Your task to perform on an android device: turn off javascript in the chrome app Image 0: 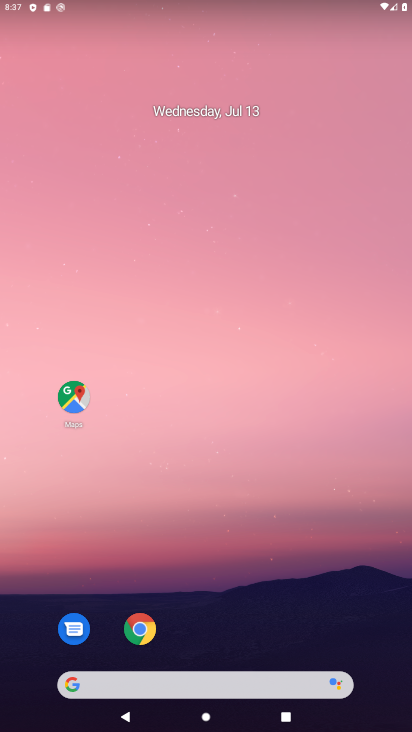
Step 0: drag from (233, 667) to (242, 197)
Your task to perform on an android device: turn off javascript in the chrome app Image 1: 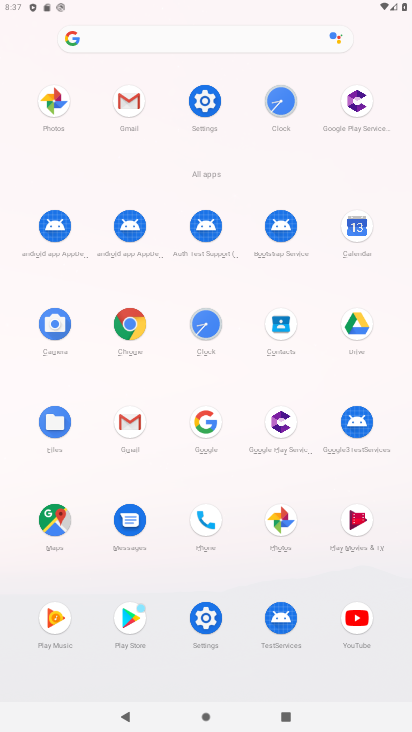
Step 1: click (123, 328)
Your task to perform on an android device: turn off javascript in the chrome app Image 2: 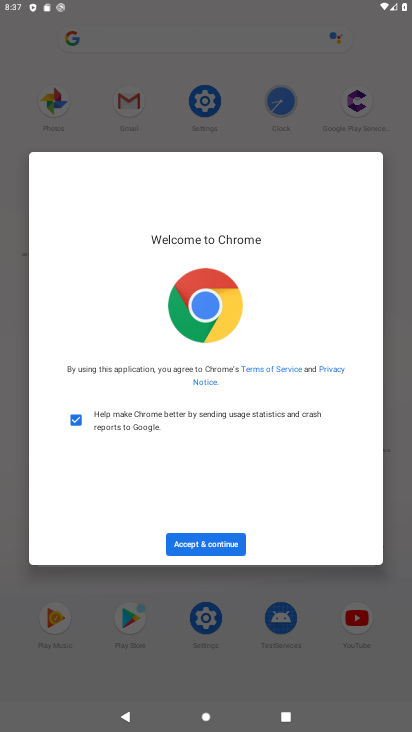
Step 2: click (200, 542)
Your task to perform on an android device: turn off javascript in the chrome app Image 3: 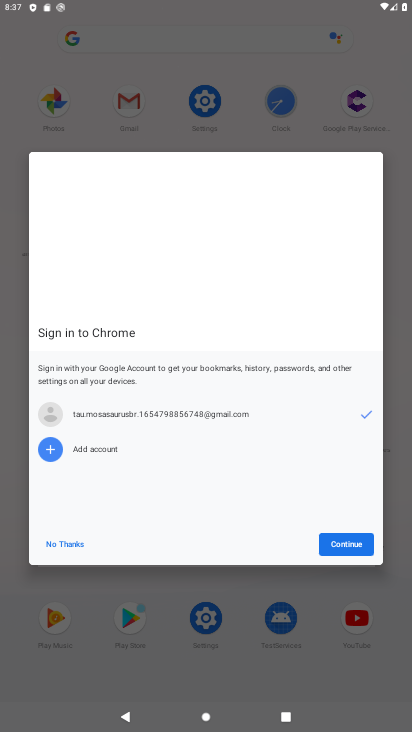
Step 3: click (352, 534)
Your task to perform on an android device: turn off javascript in the chrome app Image 4: 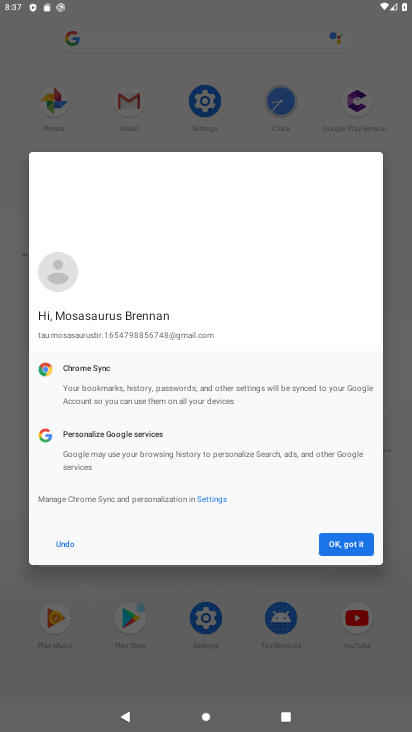
Step 4: click (352, 534)
Your task to perform on an android device: turn off javascript in the chrome app Image 5: 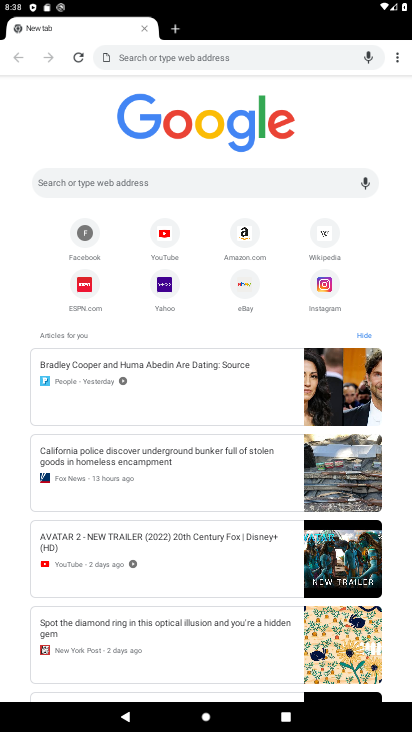
Step 5: drag from (398, 52) to (272, 260)
Your task to perform on an android device: turn off javascript in the chrome app Image 6: 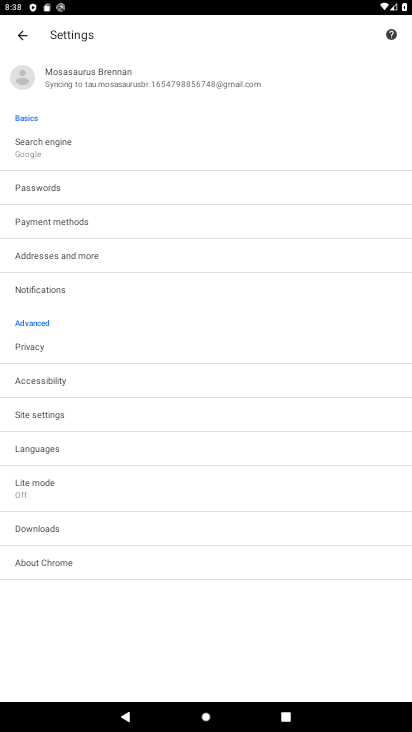
Step 6: click (48, 412)
Your task to perform on an android device: turn off javascript in the chrome app Image 7: 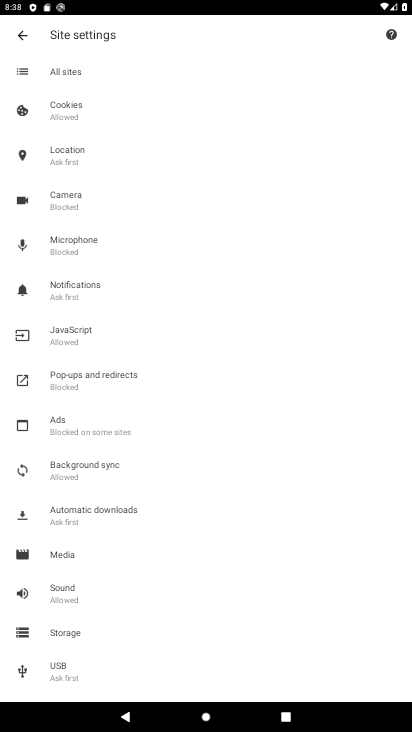
Step 7: click (56, 334)
Your task to perform on an android device: turn off javascript in the chrome app Image 8: 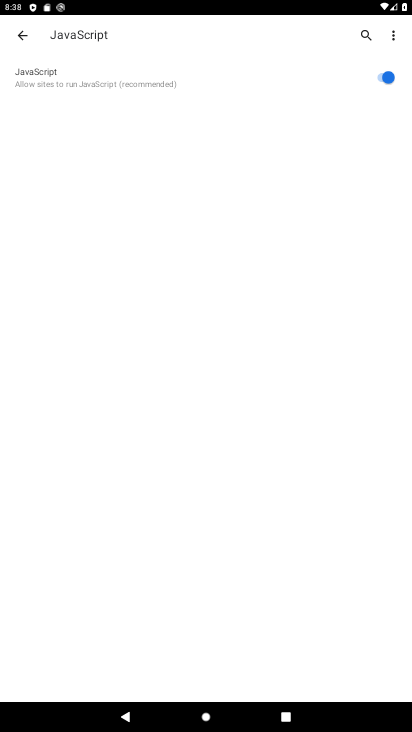
Step 8: click (321, 81)
Your task to perform on an android device: turn off javascript in the chrome app Image 9: 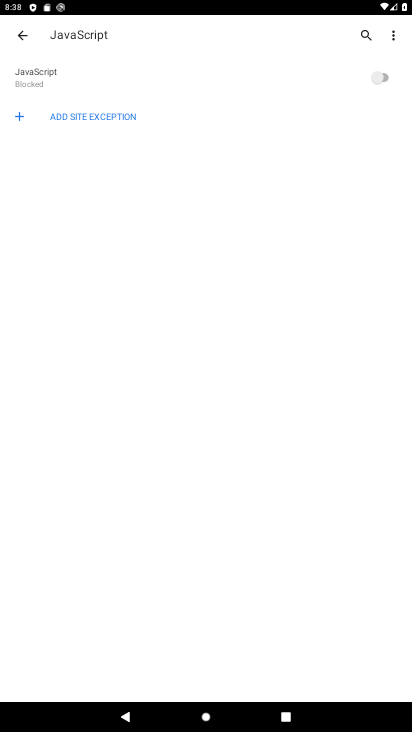
Step 9: task complete